Your task to perform on an android device: Empty the shopping cart on walmart. Search for "macbook pro" on walmart, select the first entry, and add it to the cart. Image 0: 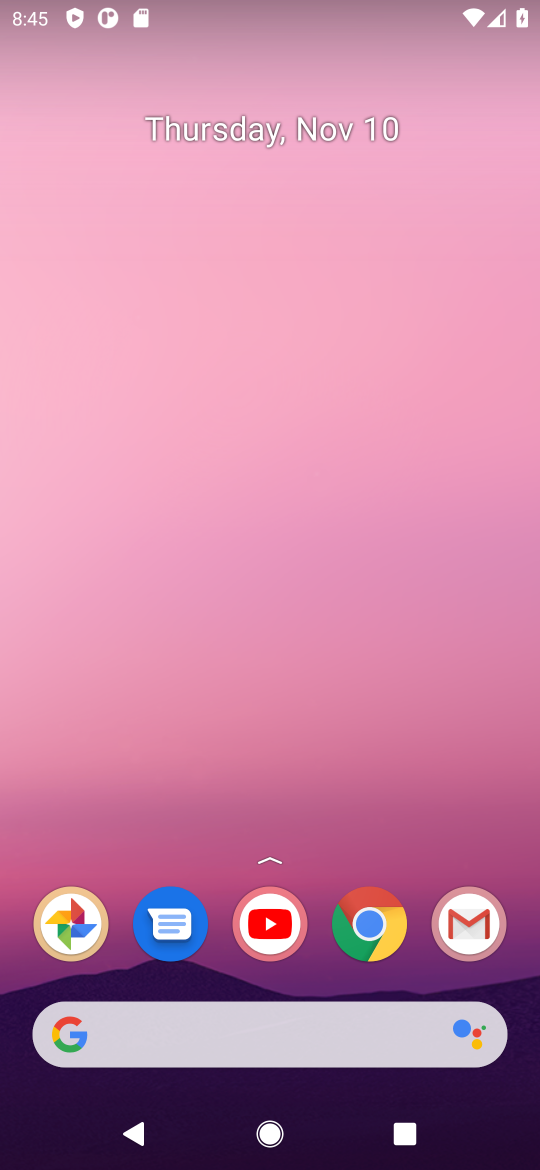
Step 0: click (375, 943)
Your task to perform on an android device: Empty the shopping cart on walmart. Search for "macbook pro" on walmart, select the first entry, and add it to the cart. Image 1: 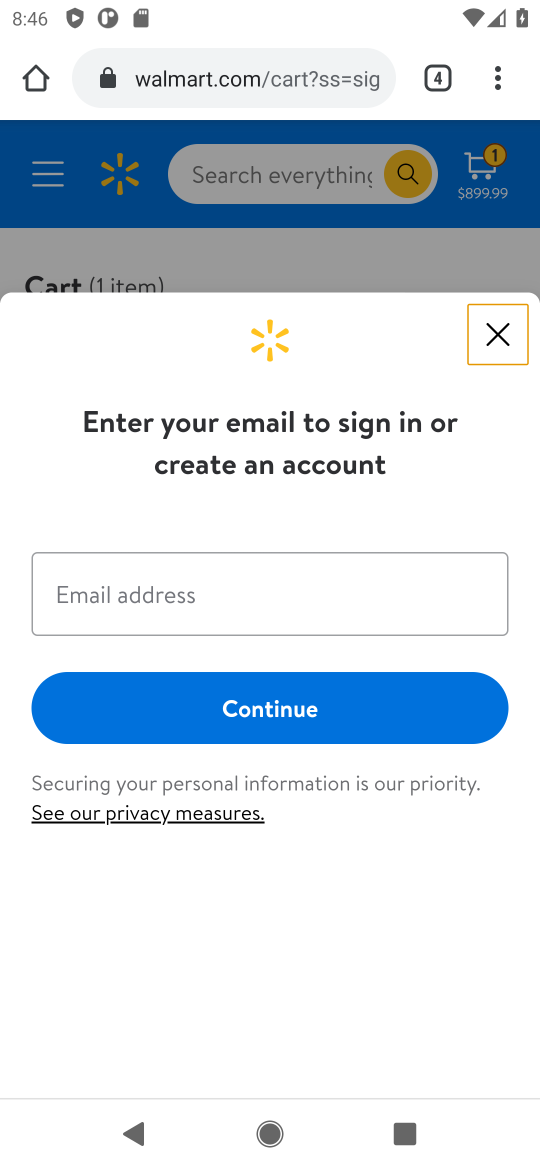
Step 1: click (498, 339)
Your task to perform on an android device: Empty the shopping cart on walmart. Search for "macbook pro" on walmart, select the first entry, and add it to the cart. Image 2: 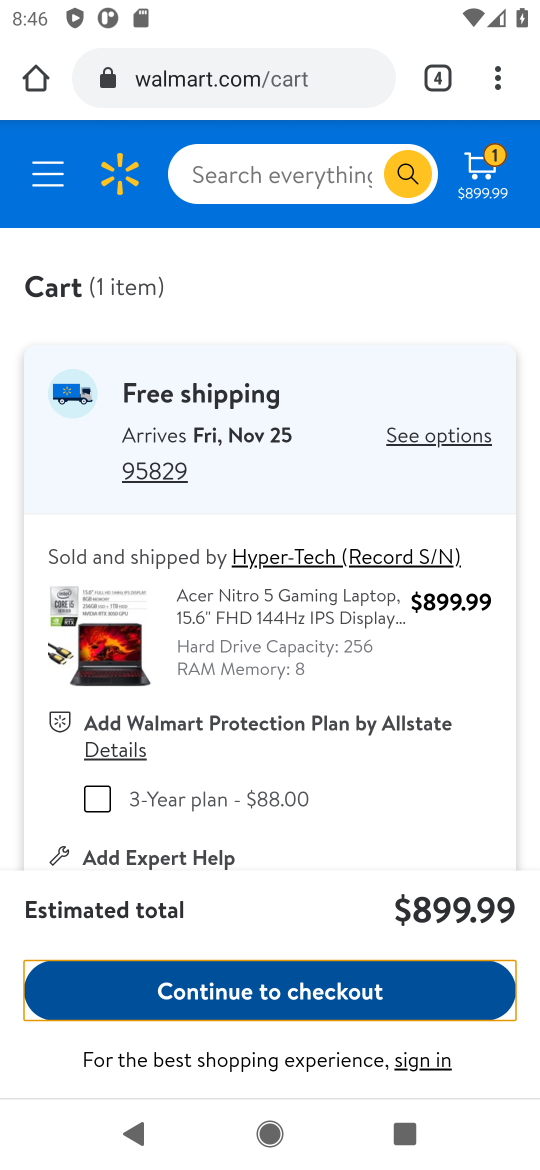
Step 2: drag from (357, 625) to (340, 411)
Your task to perform on an android device: Empty the shopping cart on walmart. Search for "macbook pro" on walmart, select the first entry, and add it to the cart. Image 3: 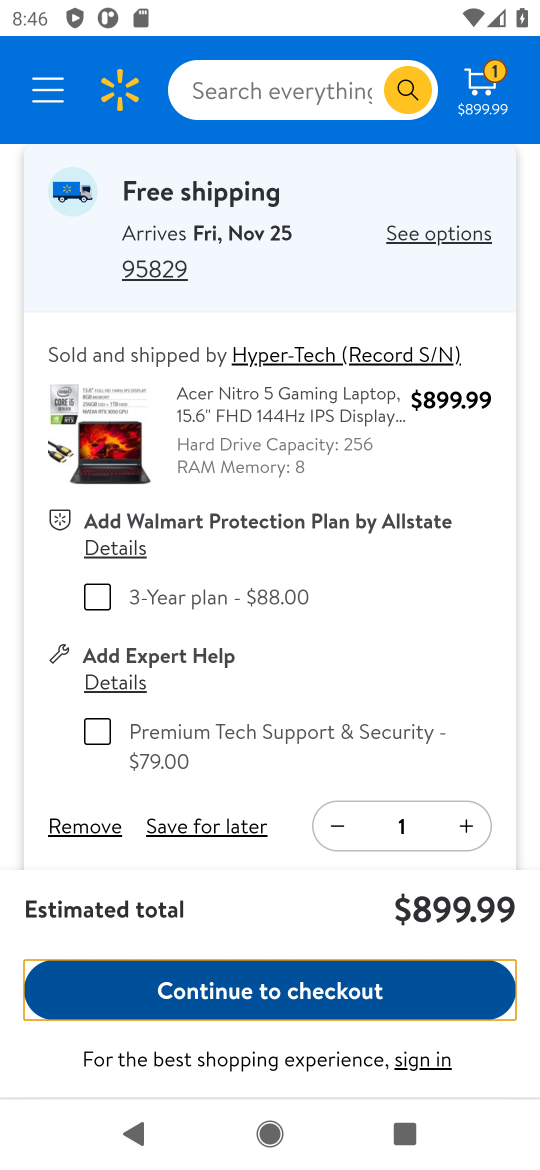
Step 3: click (83, 835)
Your task to perform on an android device: Empty the shopping cart on walmart. Search for "macbook pro" on walmart, select the first entry, and add it to the cart. Image 4: 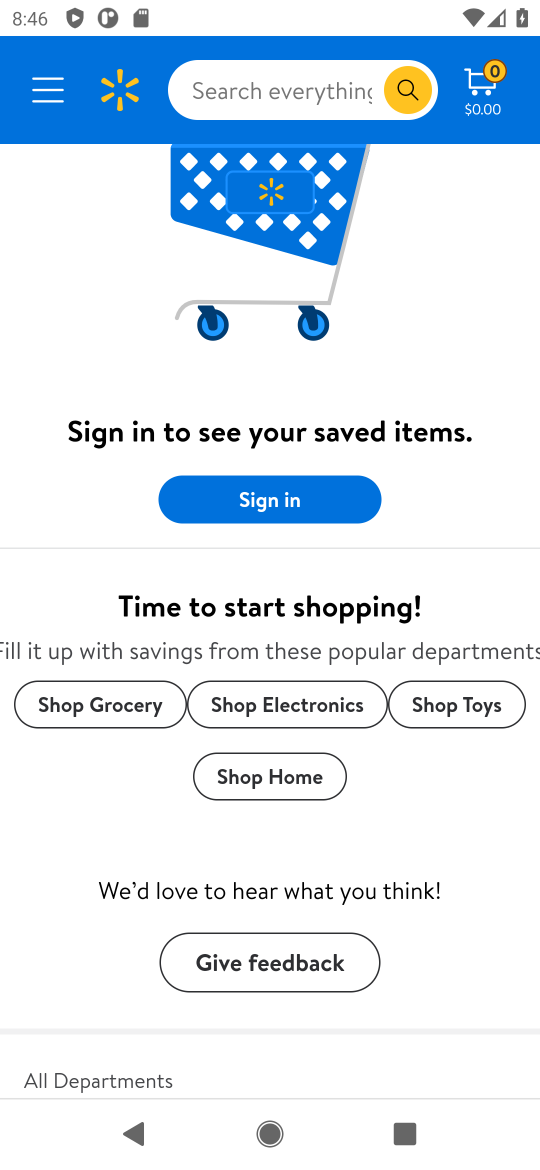
Step 4: click (227, 94)
Your task to perform on an android device: Empty the shopping cart on walmart. Search for "macbook pro" on walmart, select the first entry, and add it to the cart. Image 5: 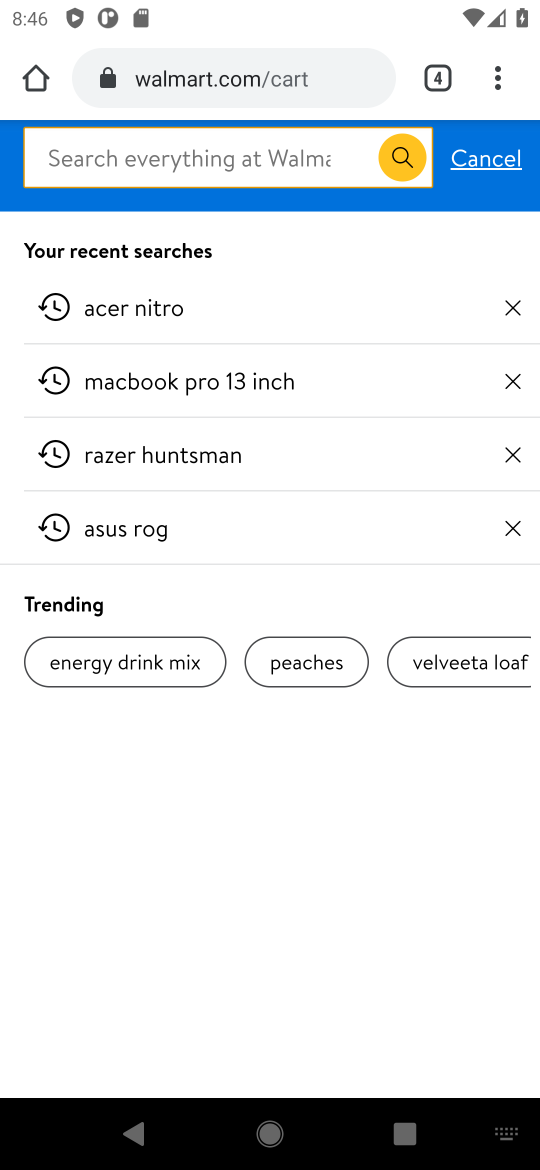
Step 5: type "macbook pro"
Your task to perform on an android device: Empty the shopping cart on walmart. Search for "macbook pro" on walmart, select the first entry, and add it to the cart. Image 6: 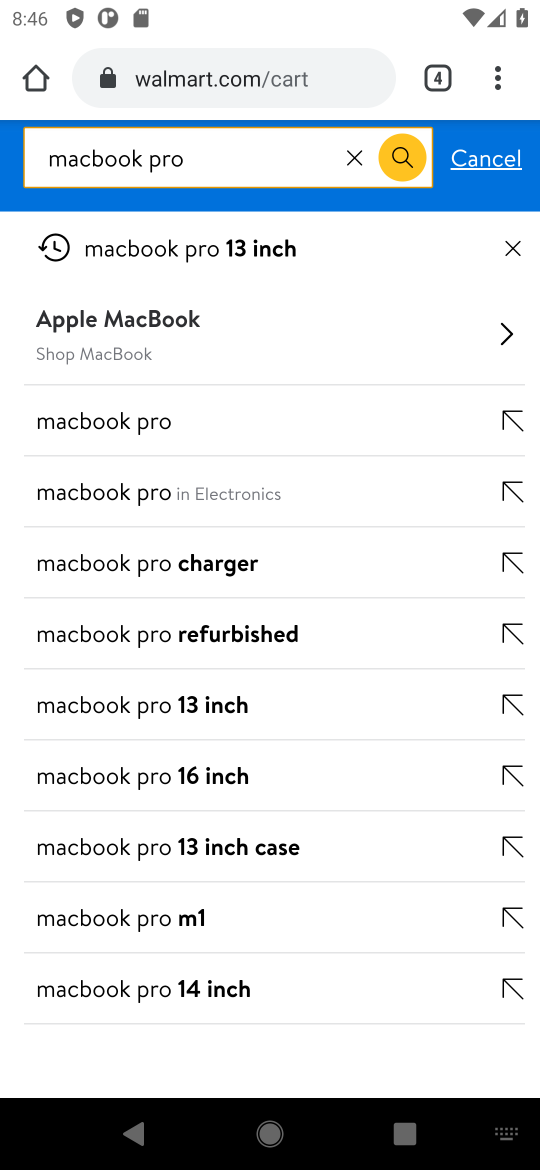
Step 6: click (138, 426)
Your task to perform on an android device: Empty the shopping cart on walmart. Search for "macbook pro" on walmart, select the first entry, and add it to the cart. Image 7: 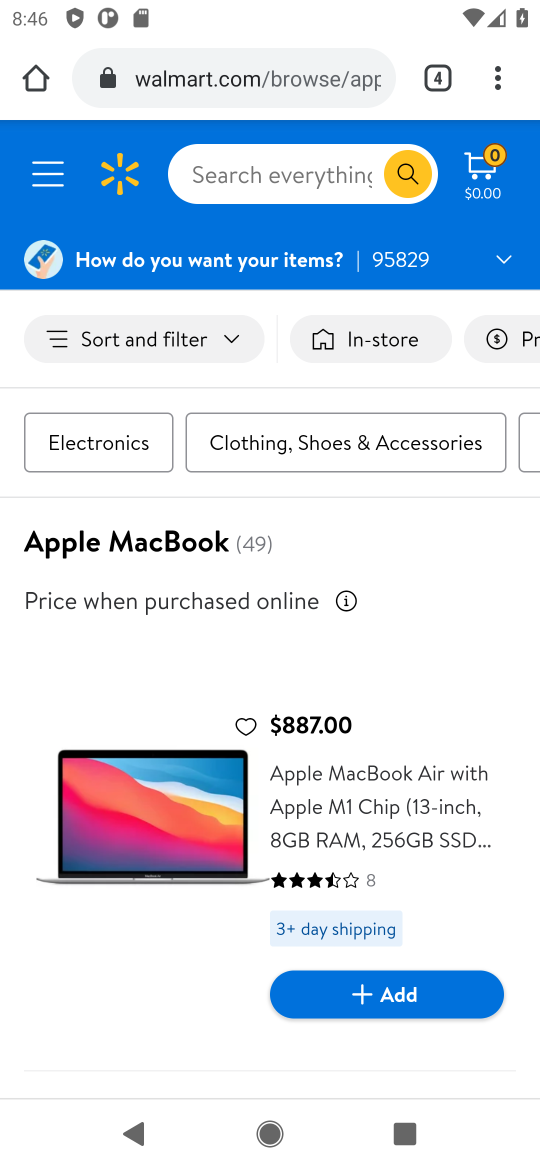
Step 7: task complete